Your task to perform on an android device: see sites visited before in the chrome app Image 0: 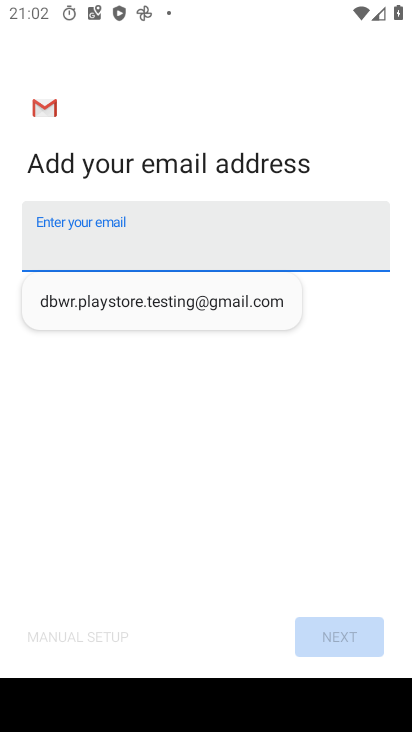
Step 0: press home button
Your task to perform on an android device: see sites visited before in the chrome app Image 1: 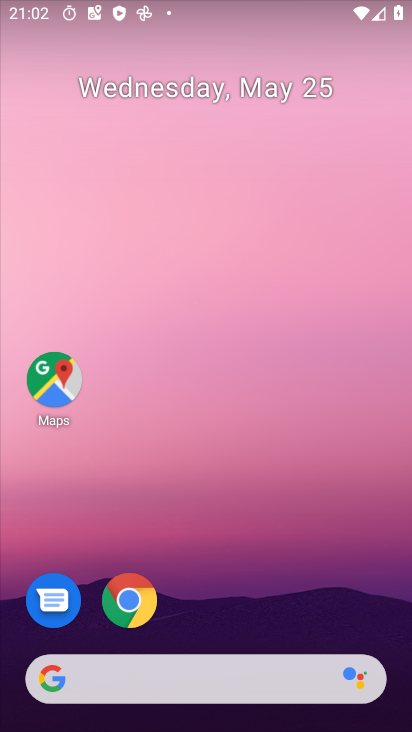
Step 1: drag from (373, 617) to (316, 170)
Your task to perform on an android device: see sites visited before in the chrome app Image 2: 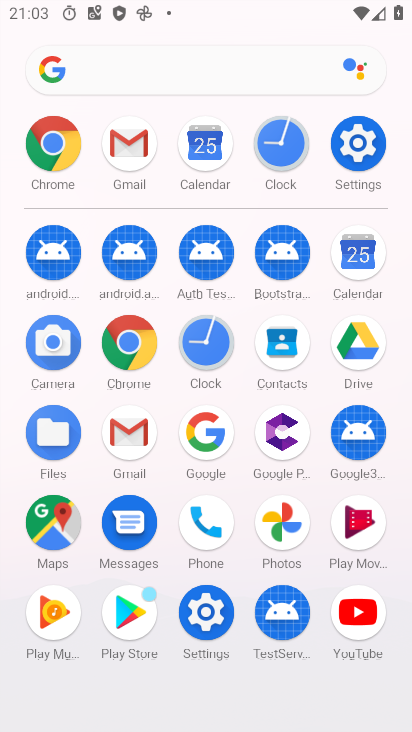
Step 2: click (147, 362)
Your task to perform on an android device: see sites visited before in the chrome app Image 3: 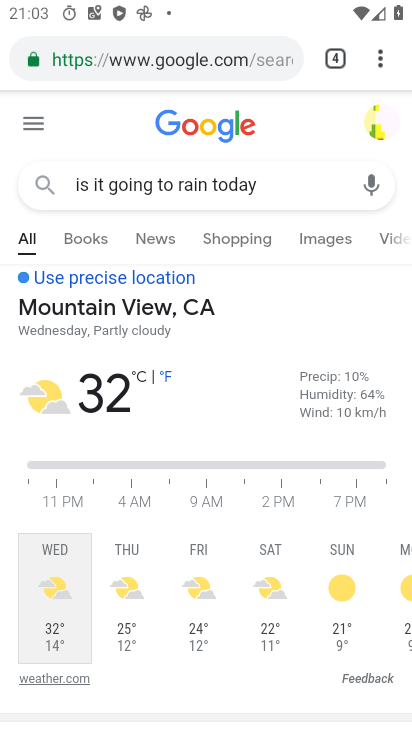
Step 3: task complete